Your task to perform on an android device: Open Youtube and go to the subscriptions tab Image 0: 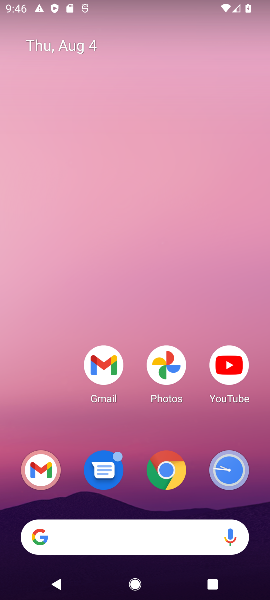
Step 0: drag from (70, 440) to (90, 27)
Your task to perform on an android device: Open Youtube and go to the subscriptions tab Image 1: 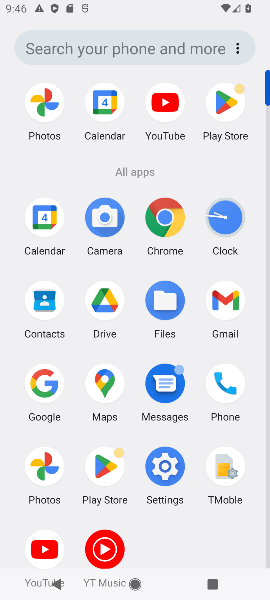
Step 1: click (35, 541)
Your task to perform on an android device: Open Youtube and go to the subscriptions tab Image 2: 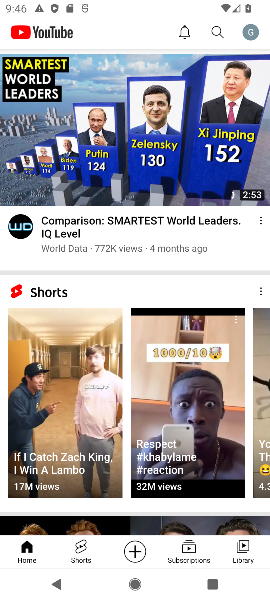
Step 2: click (182, 549)
Your task to perform on an android device: Open Youtube and go to the subscriptions tab Image 3: 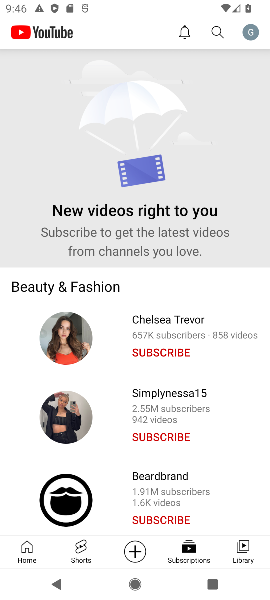
Step 3: task complete